Your task to perform on an android device: open app "TextNow: Call + Text Unlimited" Image 0: 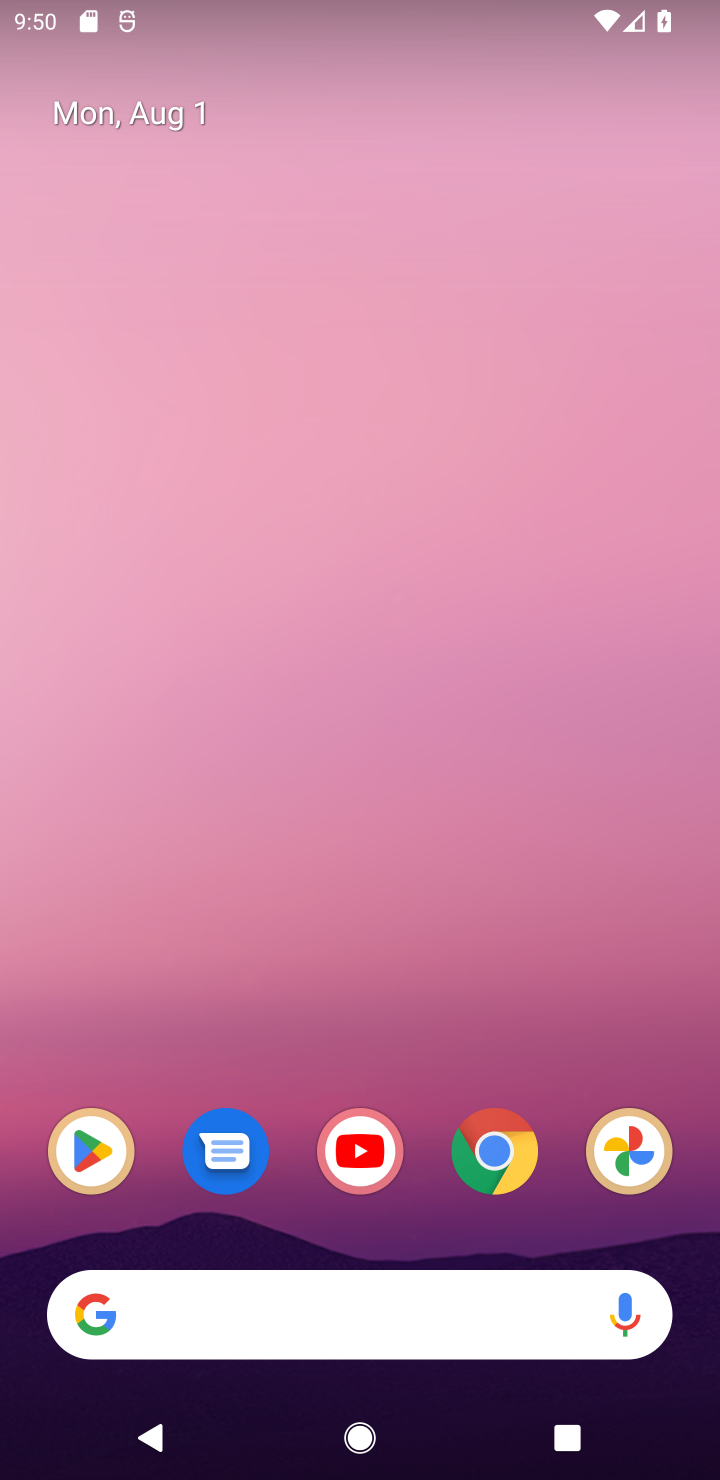
Step 0: drag from (453, 891) to (513, 501)
Your task to perform on an android device: open app "TextNow: Call + Text Unlimited" Image 1: 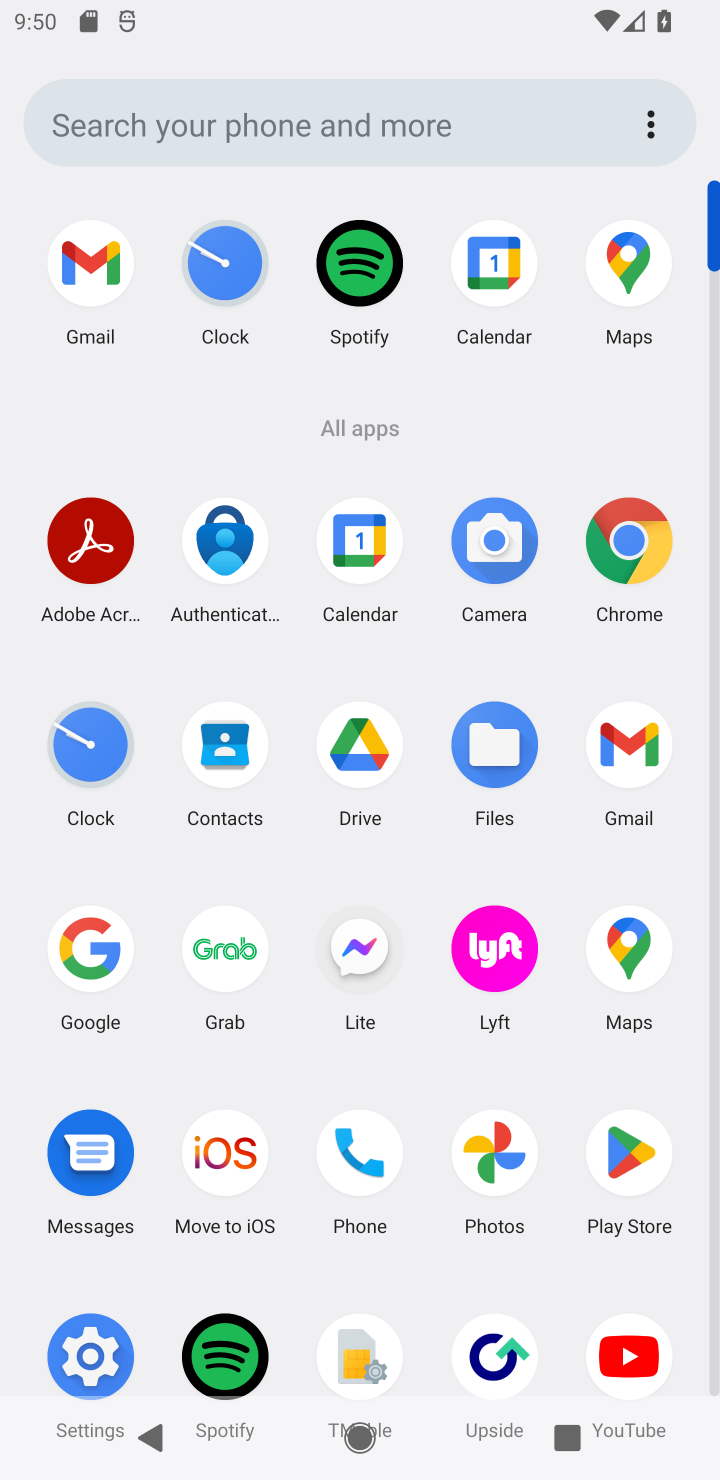
Step 1: click (632, 1148)
Your task to perform on an android device: open app "TextNow: Call + Text Unlimited" Image 2: 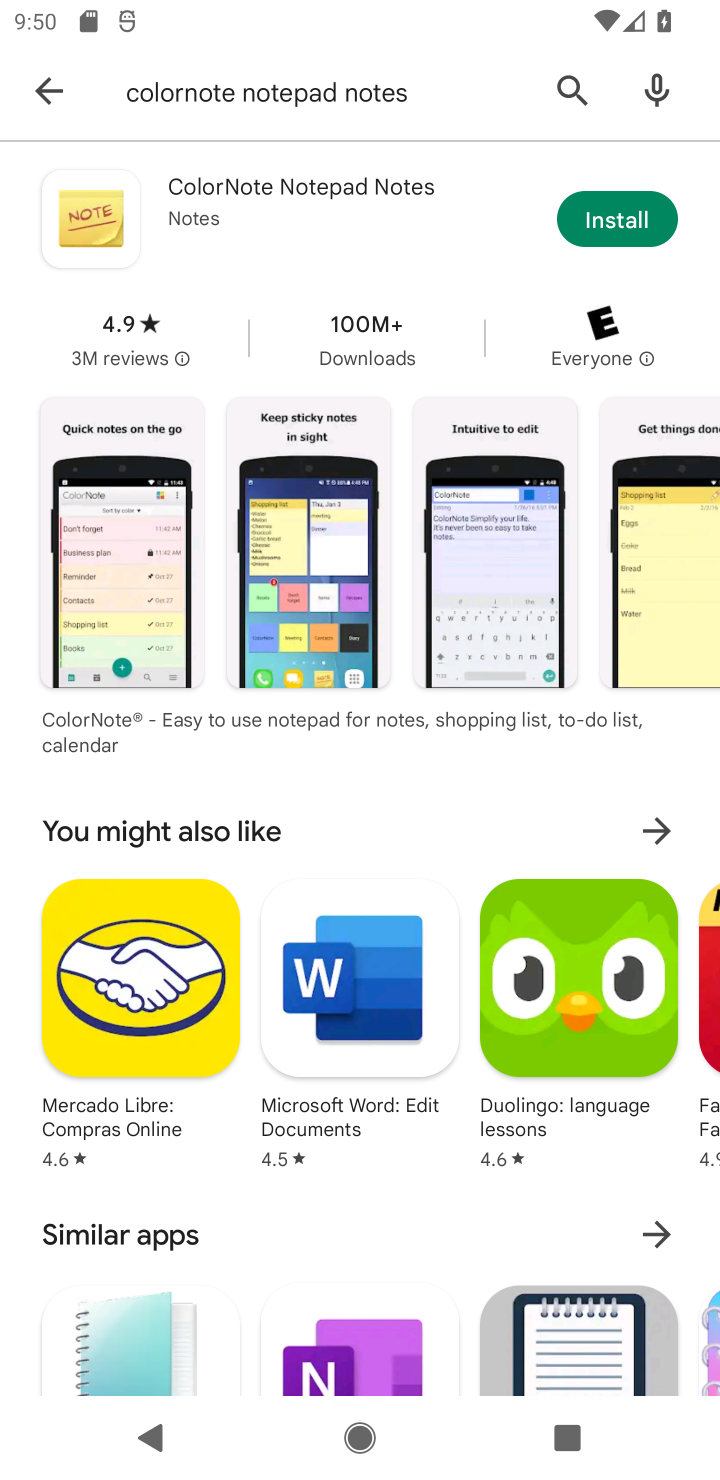
Step 2: click (581, 77)
Your task to perform on an android device: open app "TextNow: Call + Text Unlimited" Image 3: 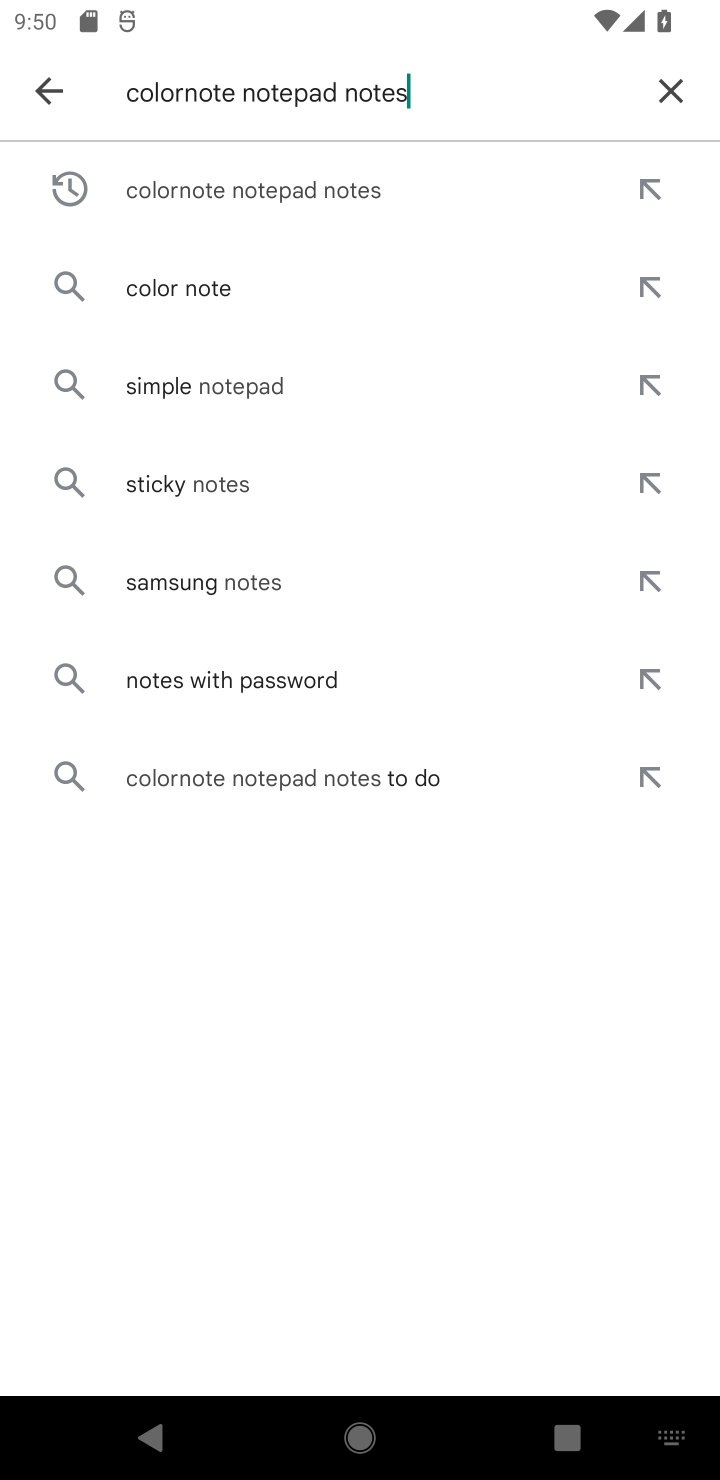
Step 3: click (675, 102)
Your task to perform on an android device: open app "TextNow: Call + Text Unlimited" Image 4: 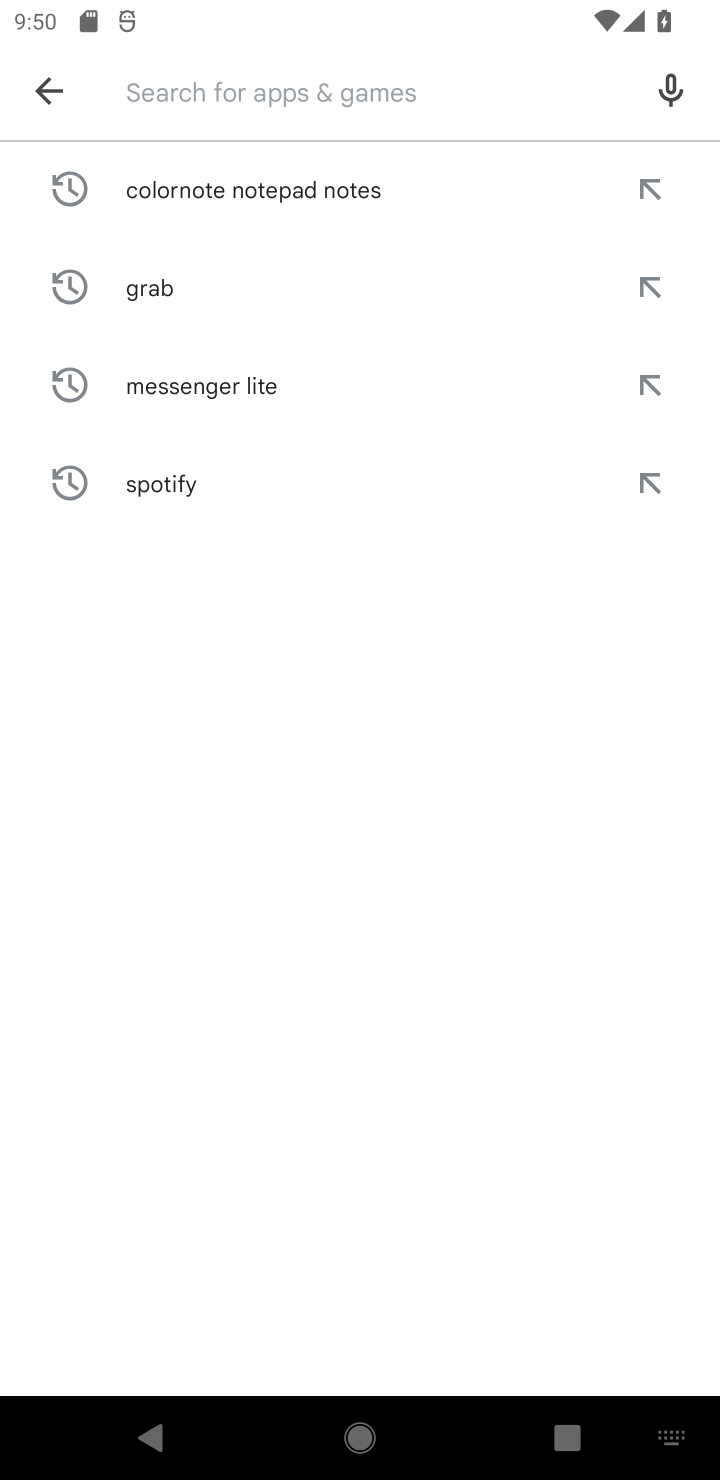
Step 4: type "TextNow: Call + Text Unlimited"
Your task to perform on an android device: open app "TextNow: Call + Text Unlimited" Image 5: 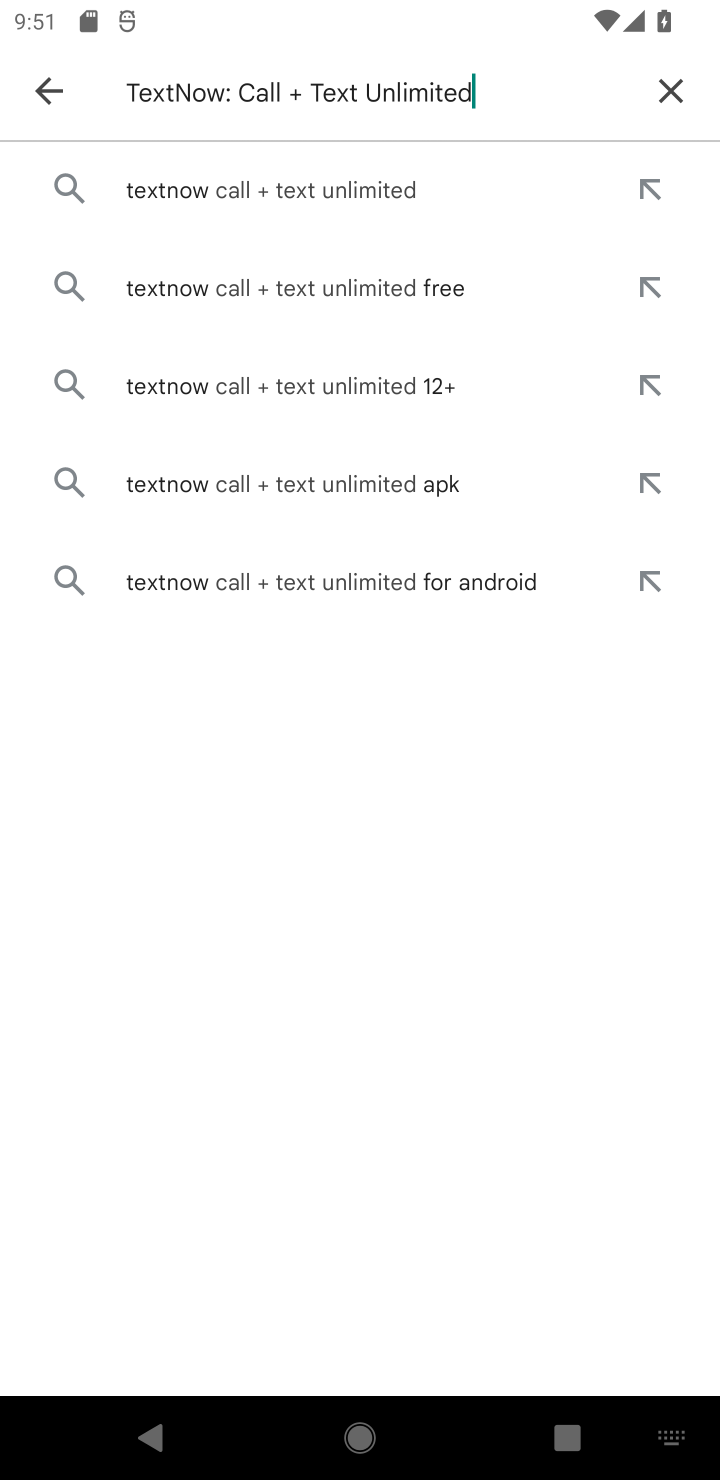
Step 5: click (247, 205)
Your task to perform on an android device: open app "TextNow: Call + Text Unlimited" Image 6: 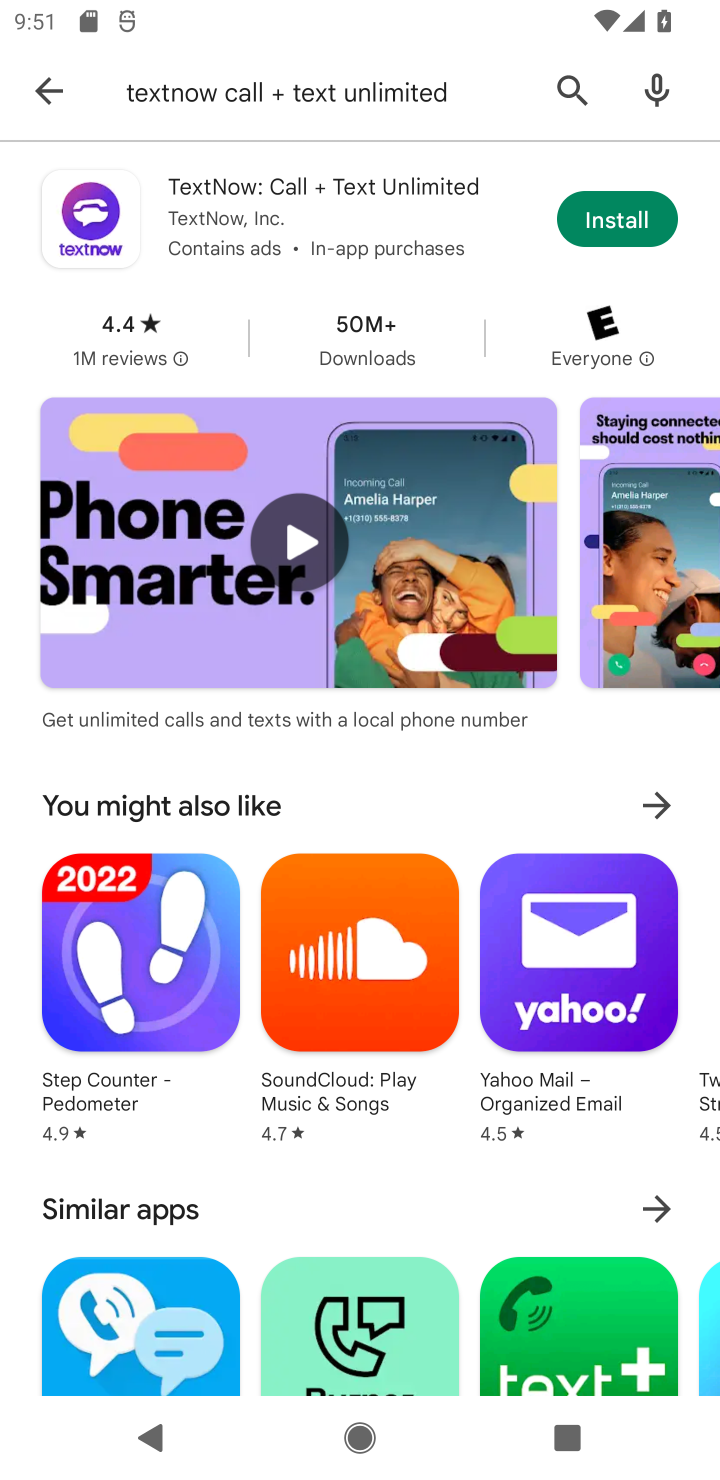
Step 6: click (640, 215)
Your task to perform on an android device: open app "TextNow: Call + Text Unlimited" Image 7: 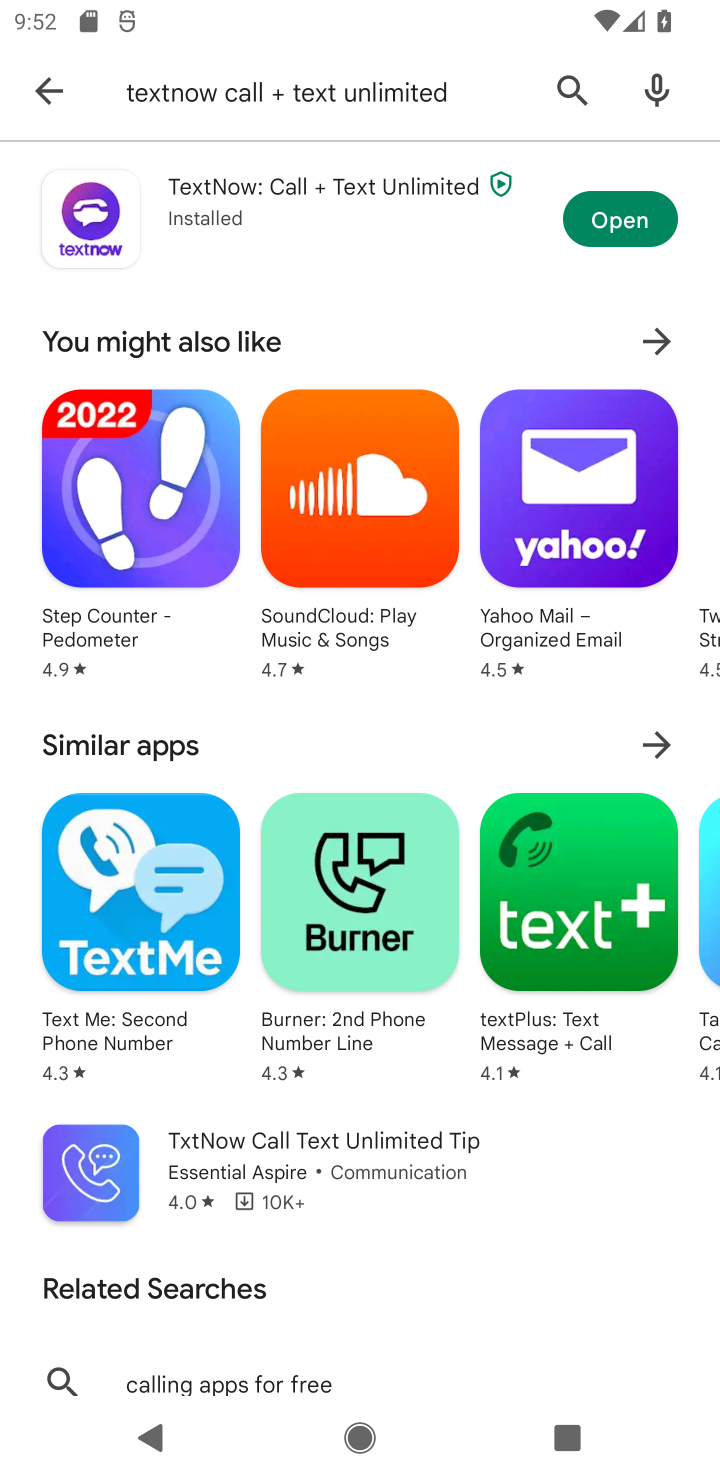
Step 7: click (607, 224)
Your task to perform on an android device: open app "TextNow: Call + Text Unlimited" Image 8: 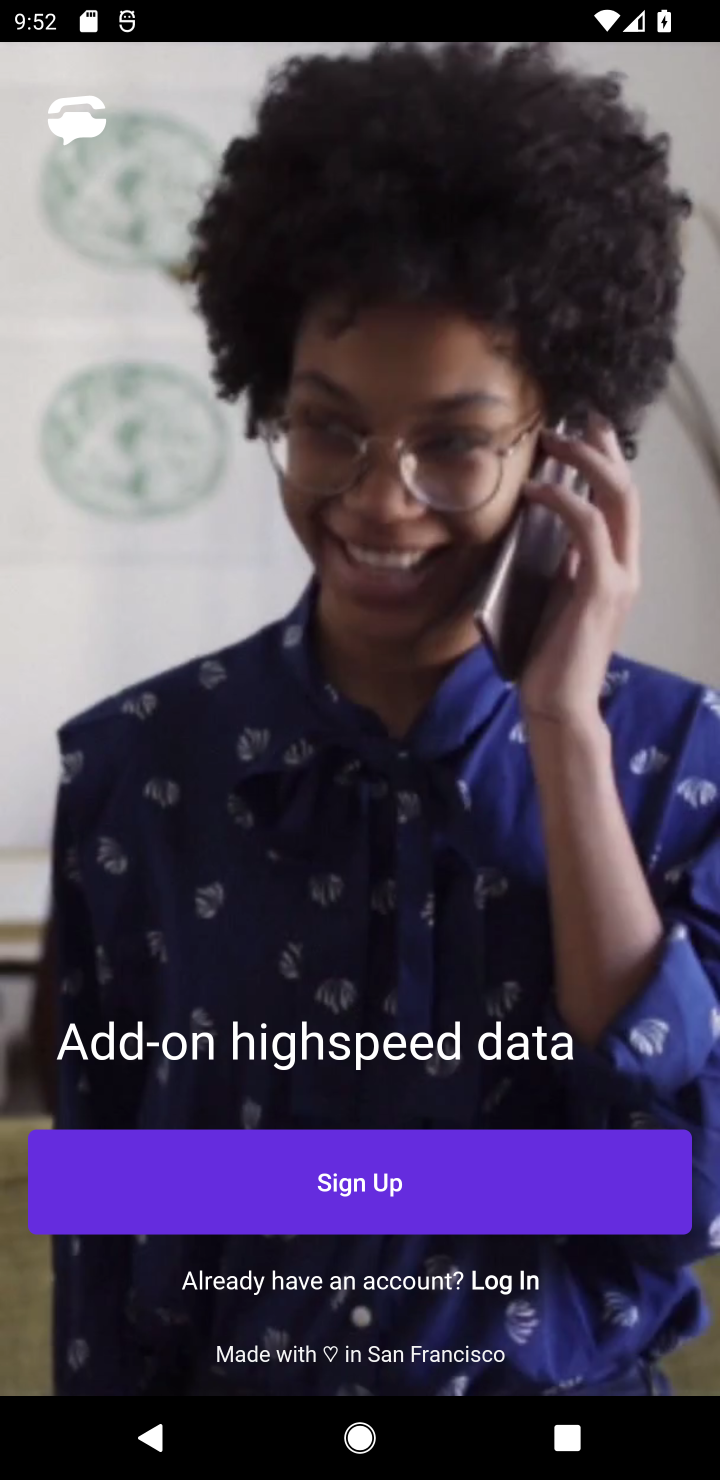
Step 8: task complete